Your task to perform on an android device: snooze an email in the gmail app Image 0: 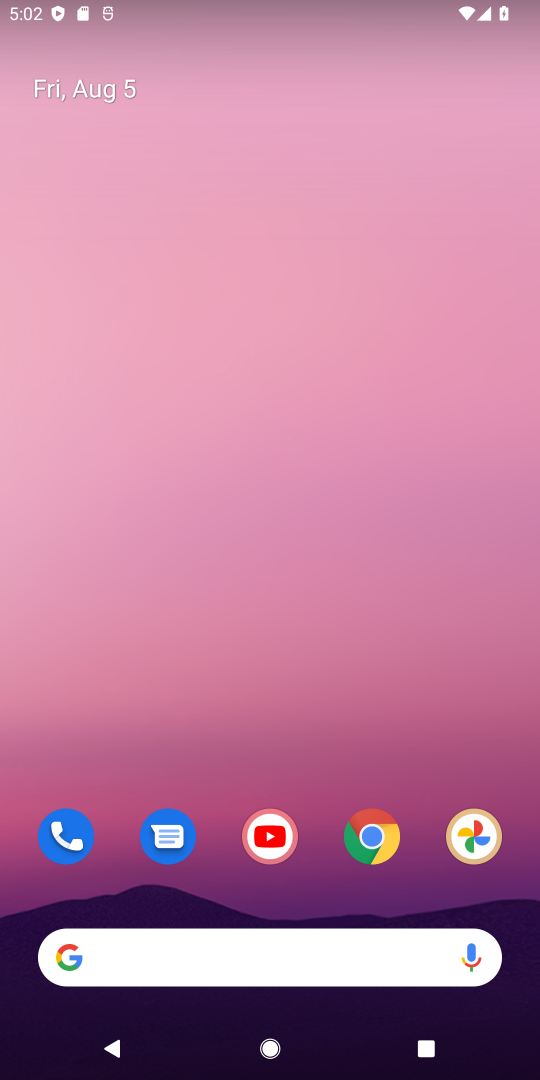
Step 0: press home button
Your task to perform on an android device: snooze an email in the gmail app Image 1: 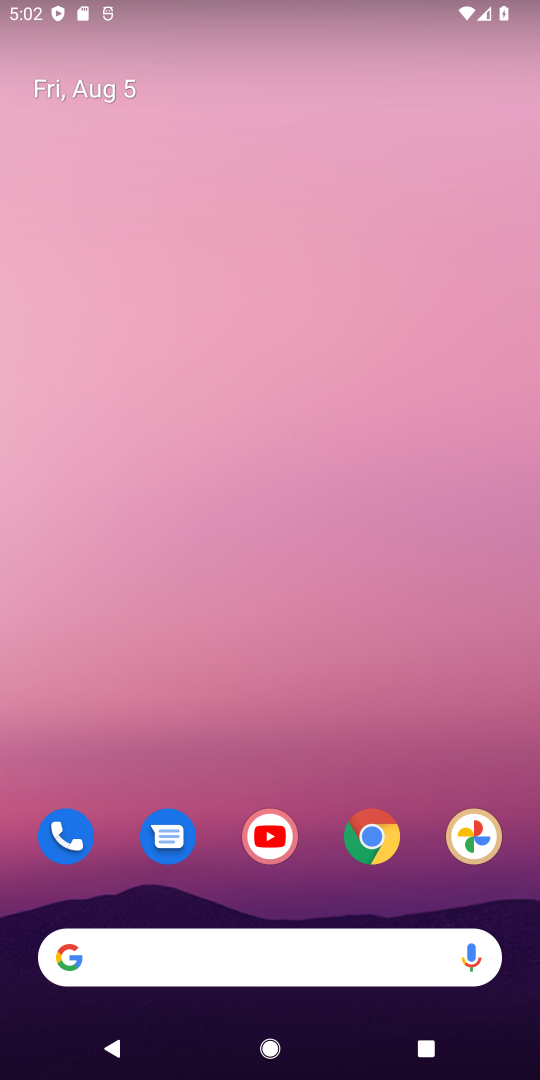
Step 1: drag from (318, 806) to (371, 53)
Your task to perform on an android device: snooze an email in the gmail app Image 2: 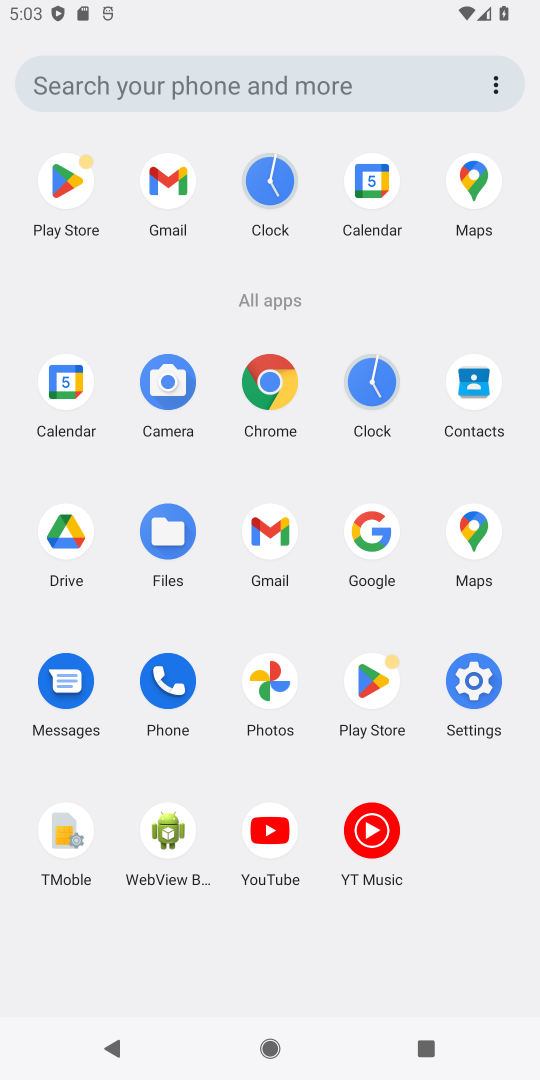
Step 2: click (267, 520)
Your task to perform on an android device: snooze an email in the gmail app Image 3: 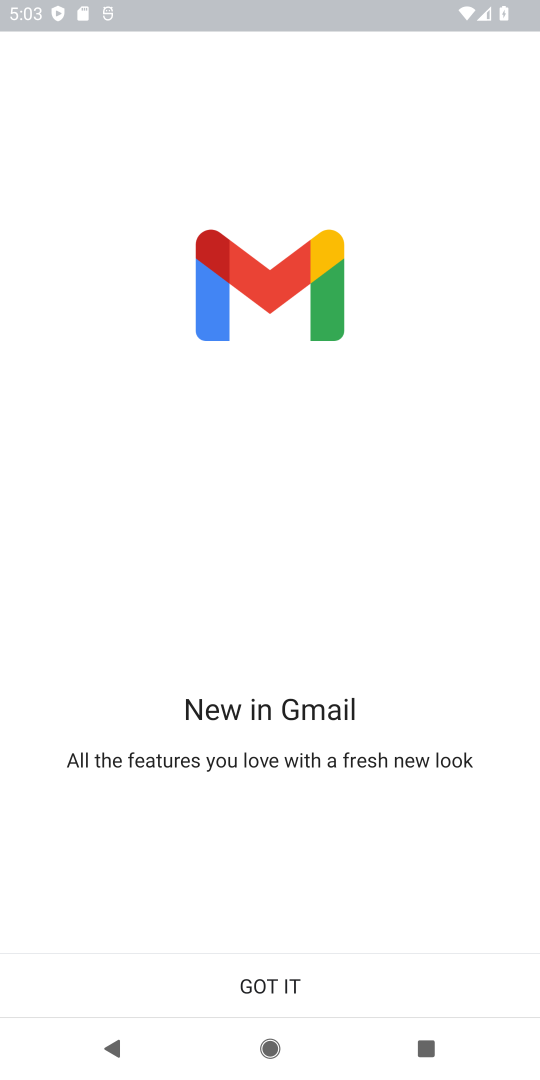
Step 3: click (276, 986)
Your task to perform on an android device: snooze an email in the gmail app Image 4: 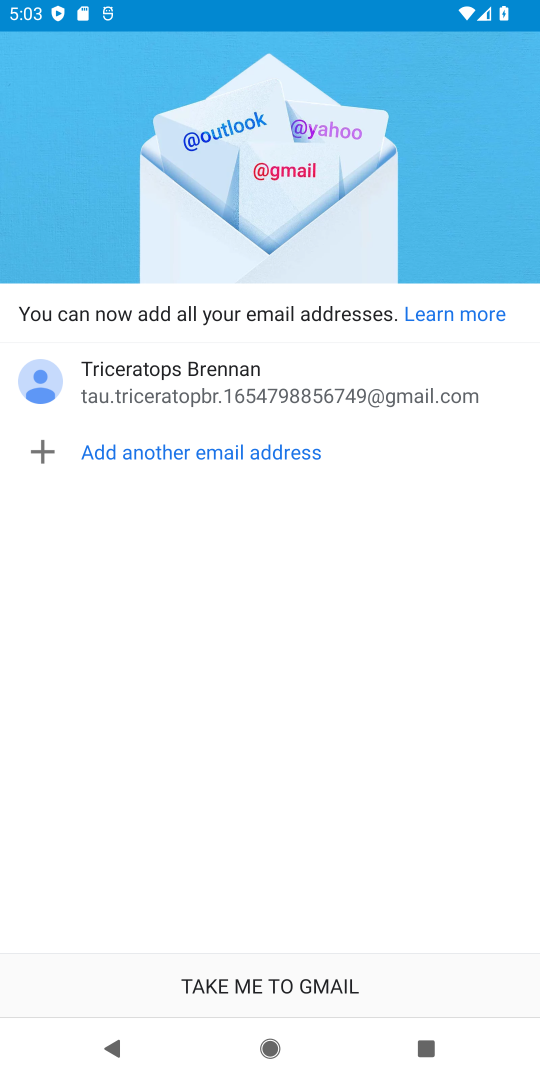
Step 4: click (264, 993)
Your task to perform on an android device: snooze an email in the gmail app Image 5: 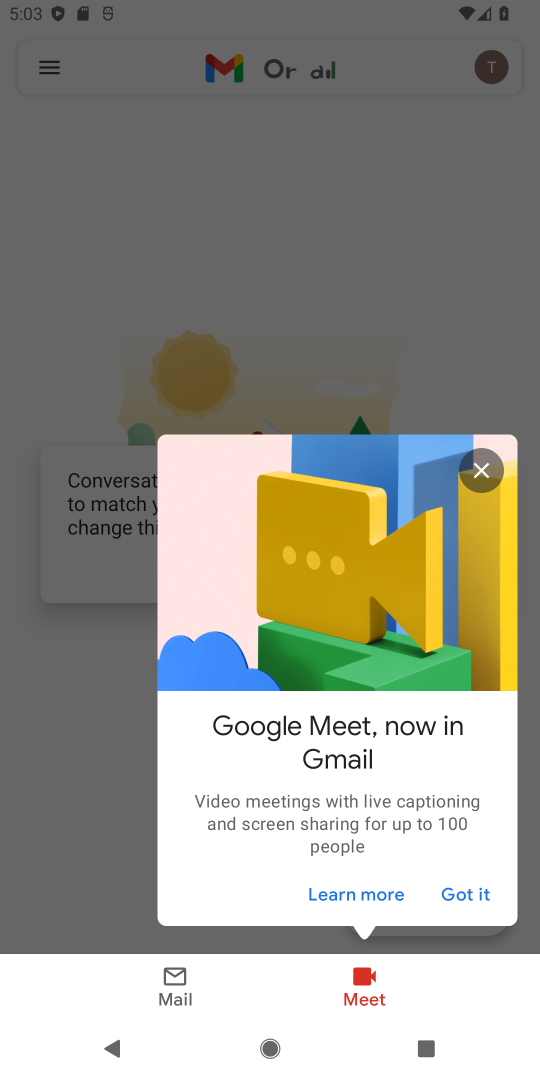
Step 5: click (457, 900)
Your task to perform on an android device: snooze an email in the gmail app Image 6: 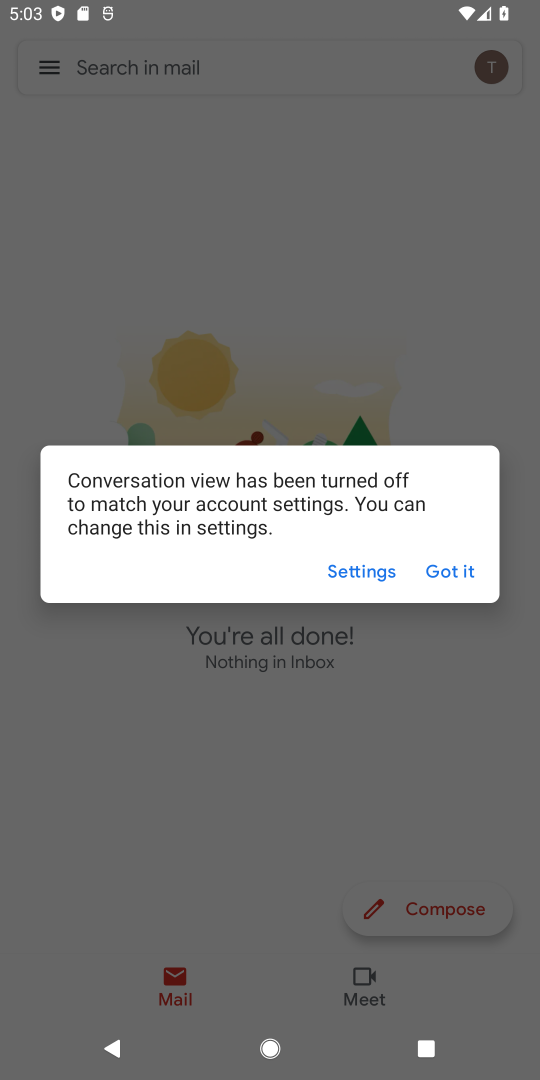
Step 6: click (446, 566)
Your task to perform on an android device: snooze an email in the gmail app Image 7: 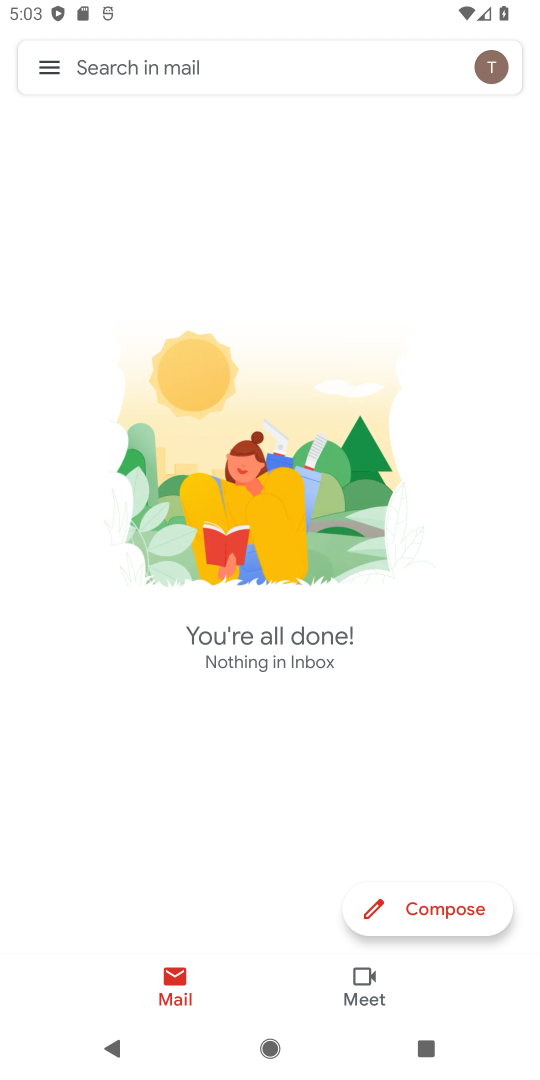
Step 7: click (40, 68)
Your task to perform on an android device: snooze an email in the gmail app Image 8: 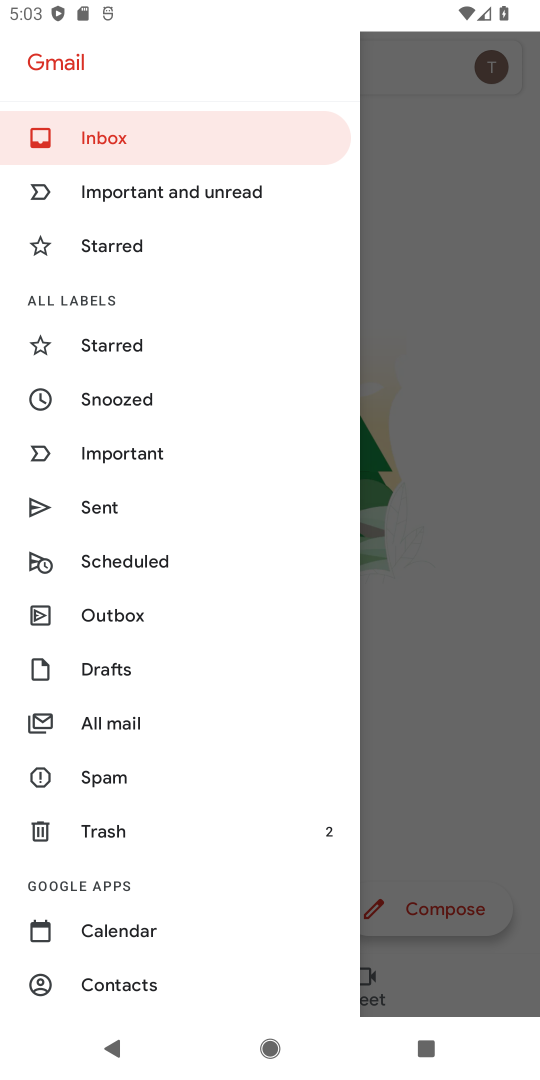
Step 8: click (147, 717)
Your task to perform on an android device: snooze an email in the gmail app Image 9: 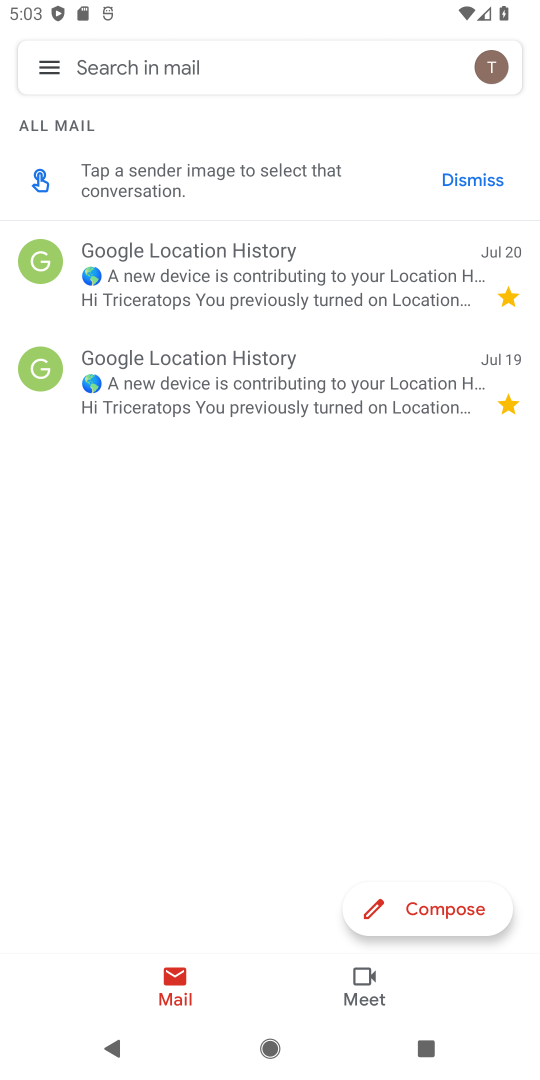
Step 9: click (45, 264)
Your task to perform on an android device: snooze an email in the gmail app Image 10: 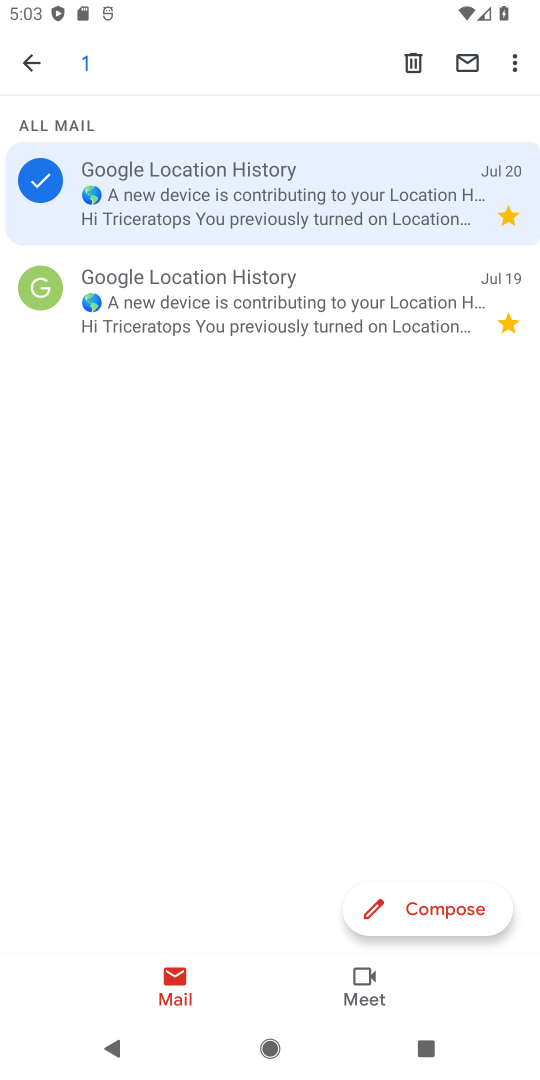
Step 10: click (515, 58)
Your task to perform on an android device: snooze an email in the gmail app Image 11: 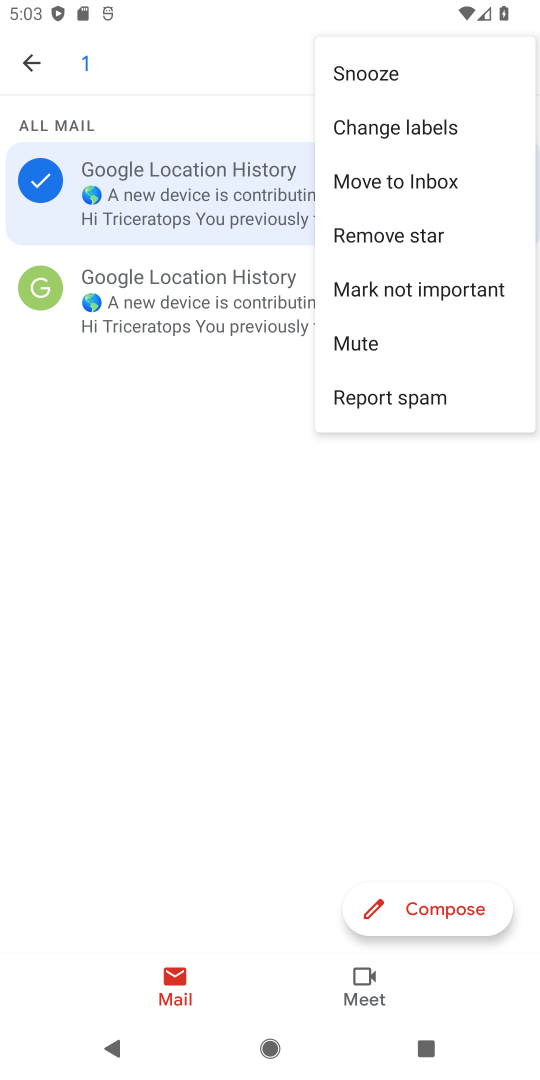
Step 11: click (412, 66)
Your task to perform on an android device: snooze an email in the gmail app Image 12: 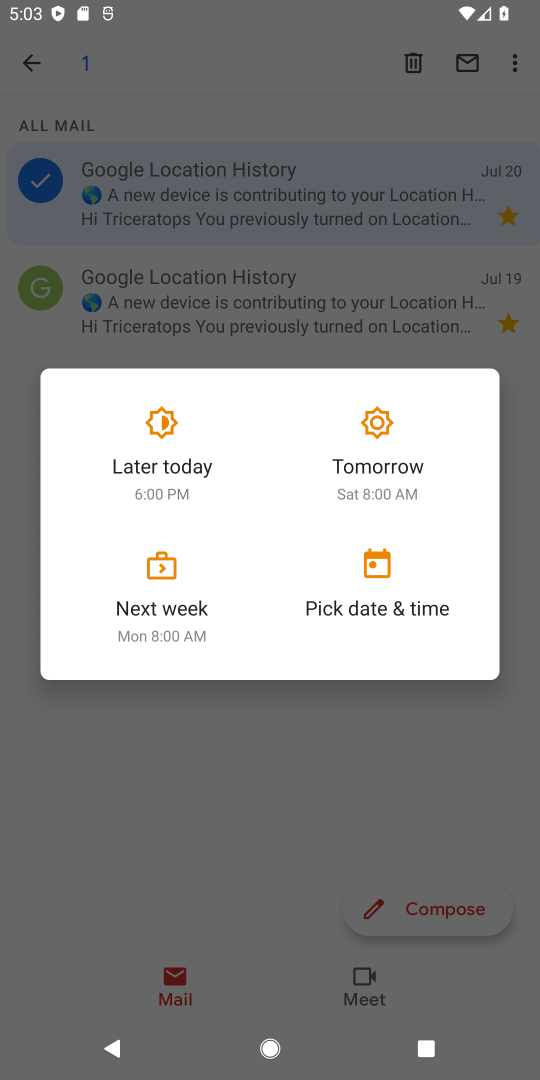
Step 12: click (161, 587)
Your task to perform on an android device: snooze an email in the gmail app Image 13: 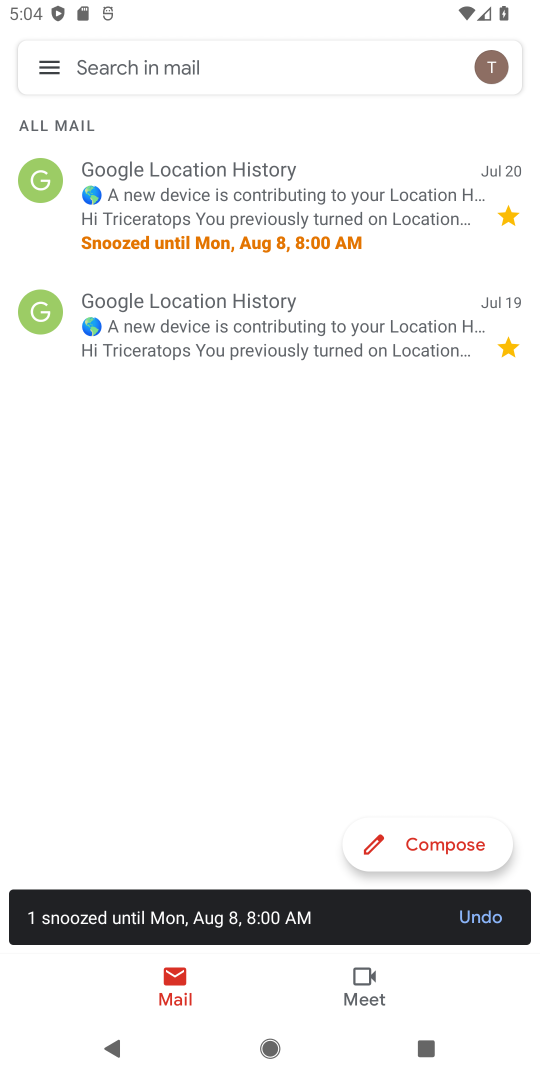
Step 13: task complete